Your task to perform on an android device: Open settings on Google Maps Image 0: 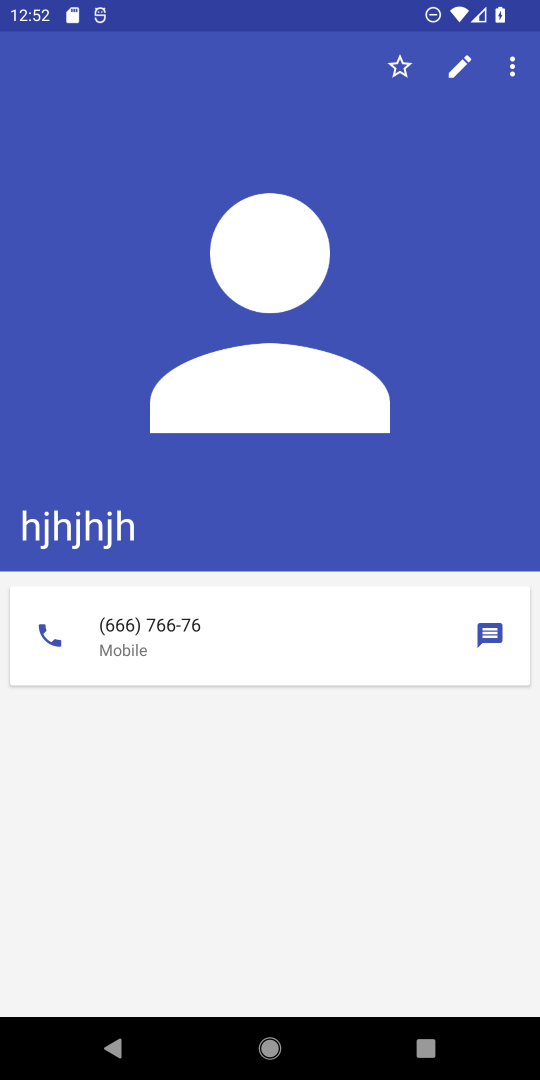
Step 0: press home button
Your task to perform on an android device: Open settings on Google Maps Image 1: 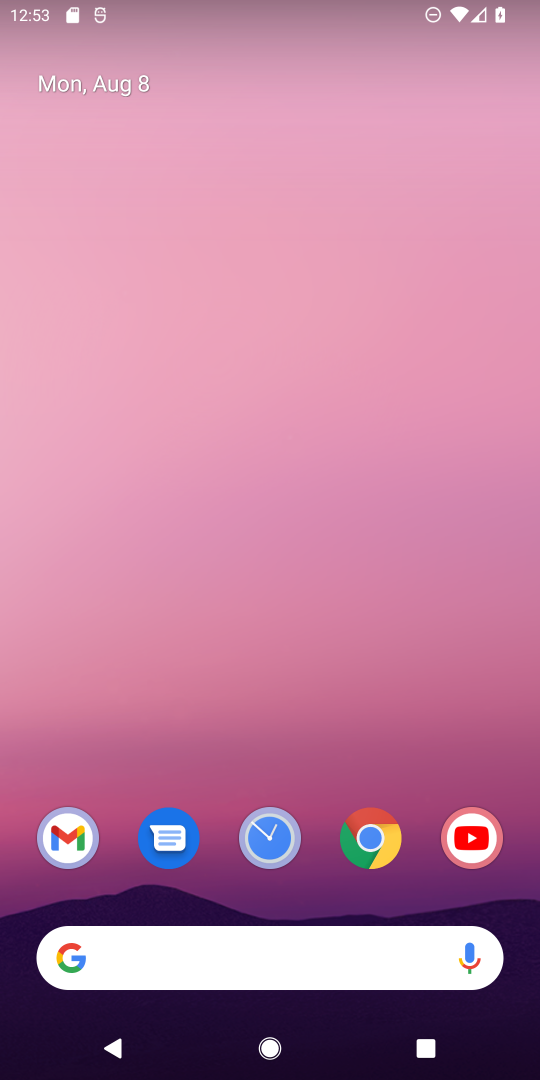
Step 1: drag from (364, 756) to (396, 2)
Your task to perform on an android device: Open settings on Google Maps Image 2: 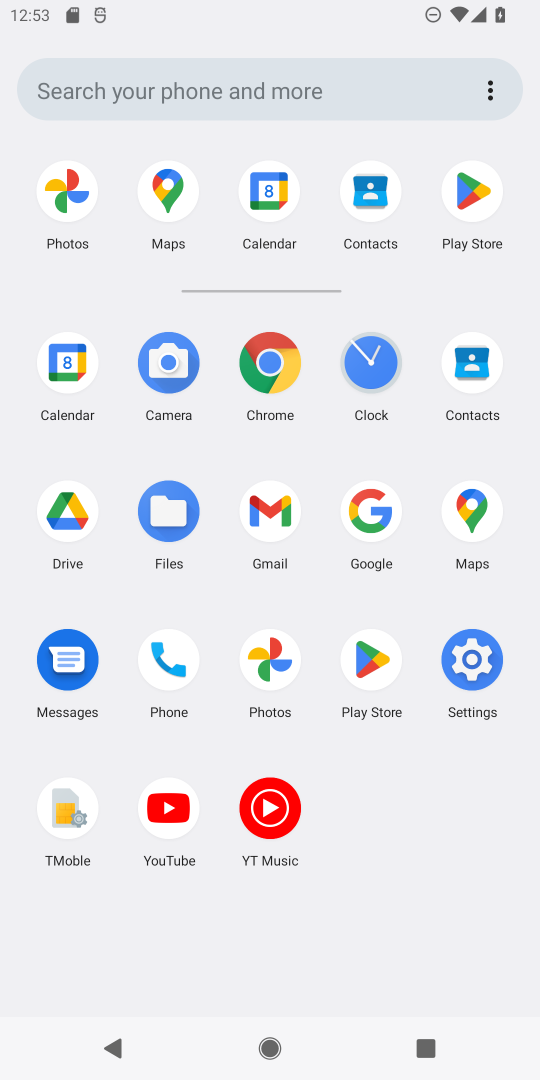
Step 2: click (480, 496)
Your task to perform on an android device: Open settings on Google Maps Image 3: 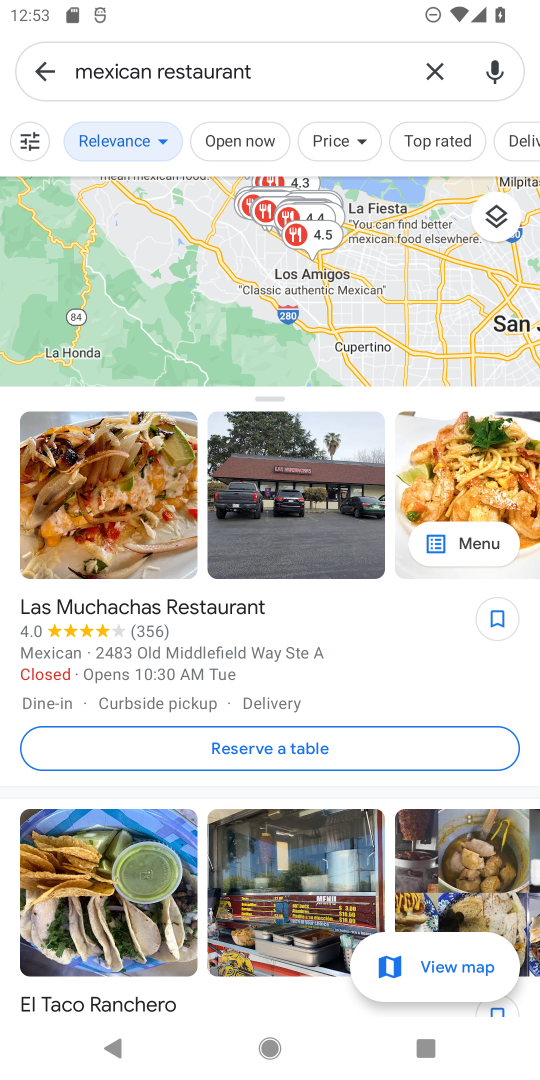
Step 3: click (47, 68)
Your task to perform on an android device: Open settings on Google Maps Image 4: 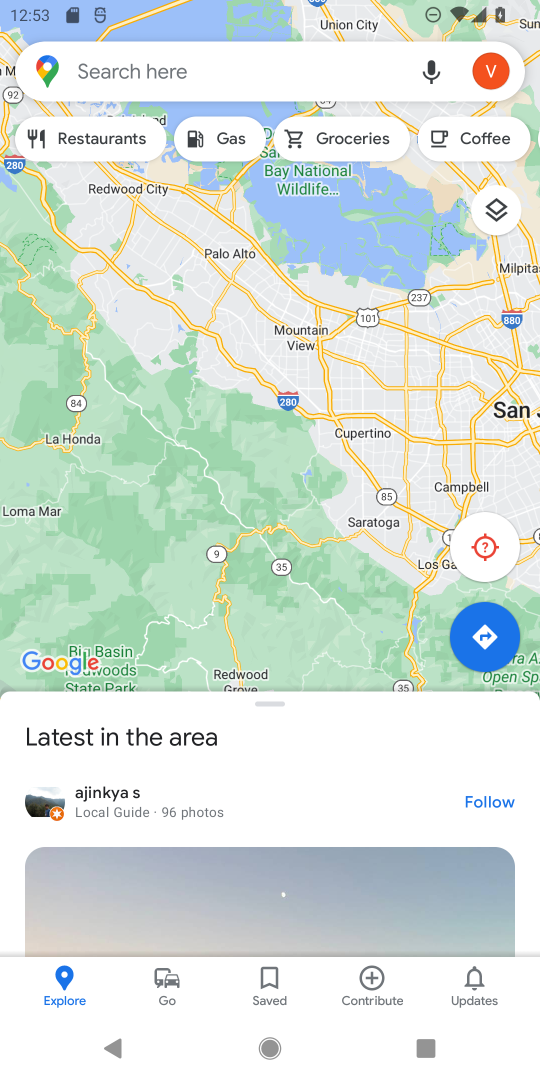
Step 4: task complete